Your task to perform on an android device: Search for sushi restaurants on Maps Image 0: 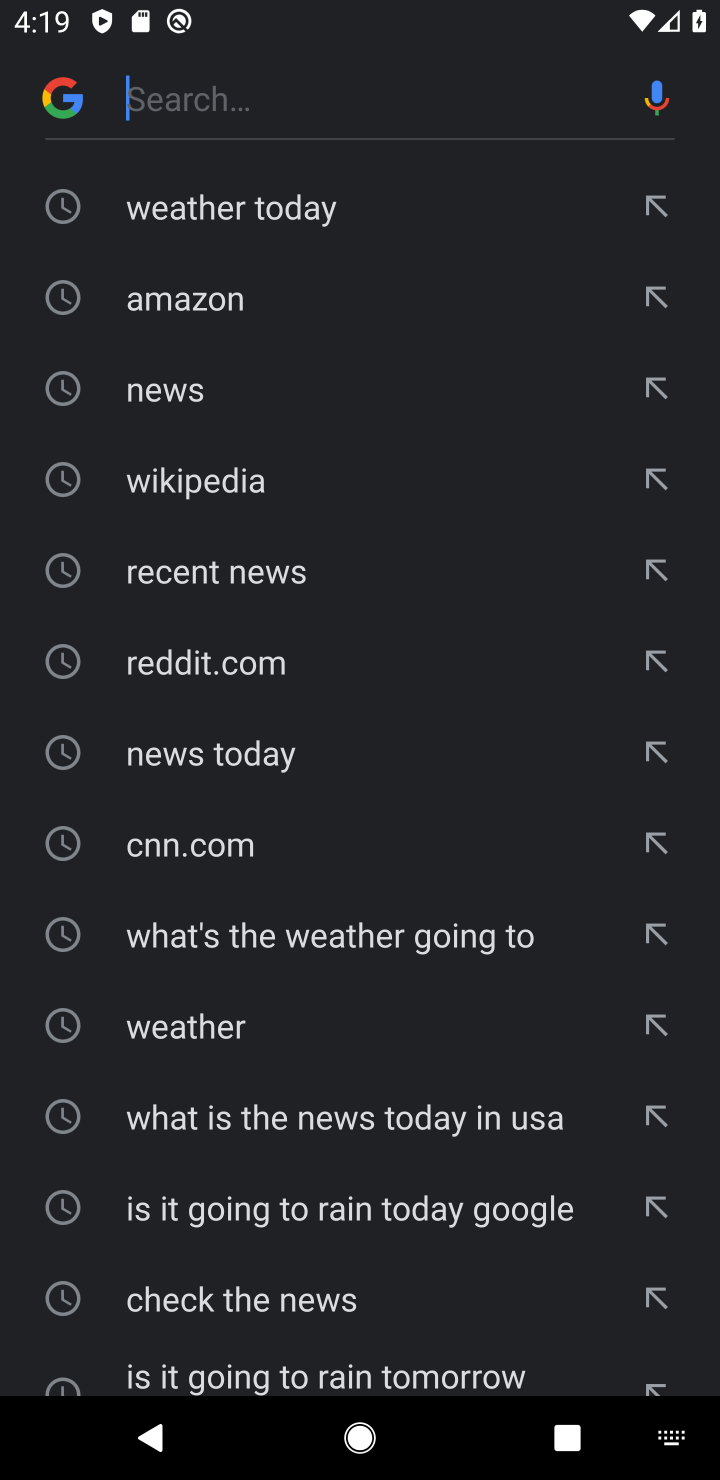
Step 0: press home button
Your task to perform on an android device: Search for sushi restaurants on Maps Image 1: 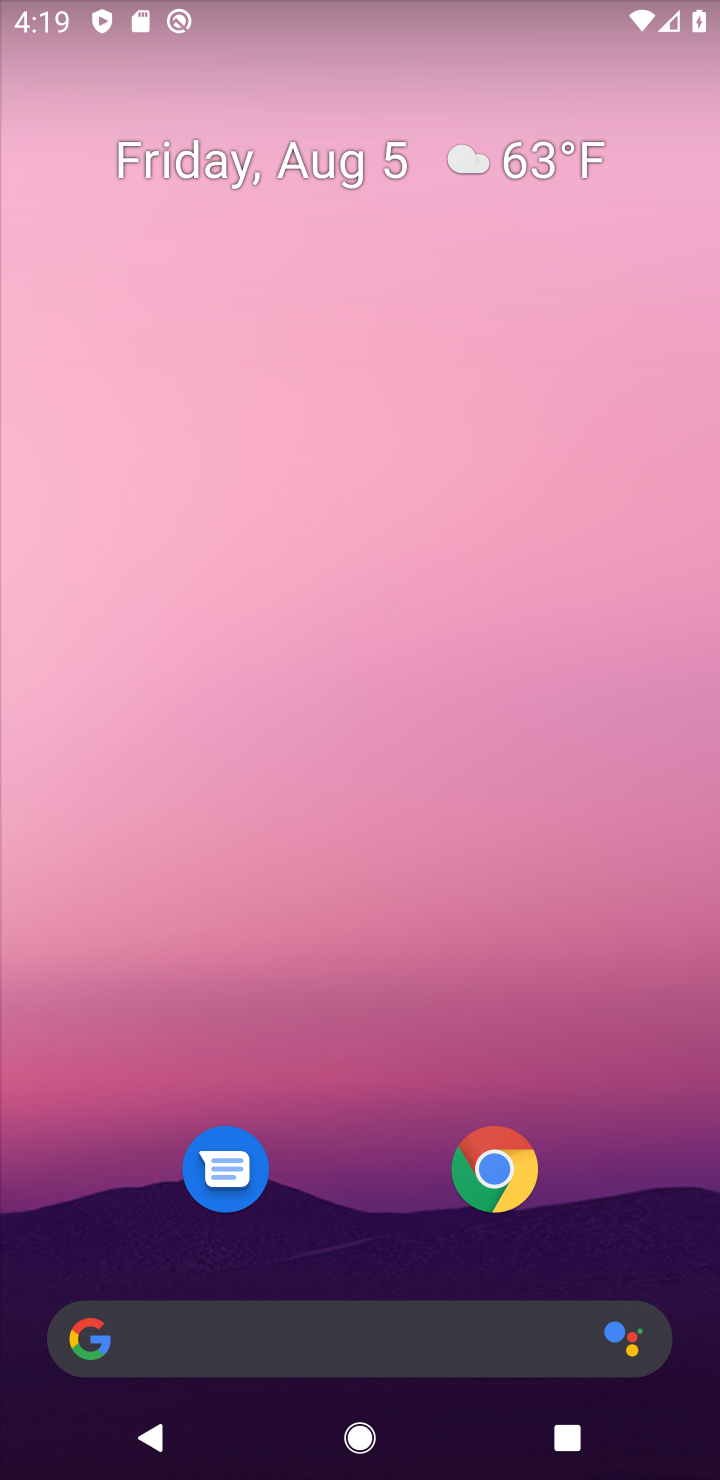
Step 1: drag from (421, 1258) to (379, 272)
Your task to perform on an android device: Search for sushi restaurants on Maps Image 2: 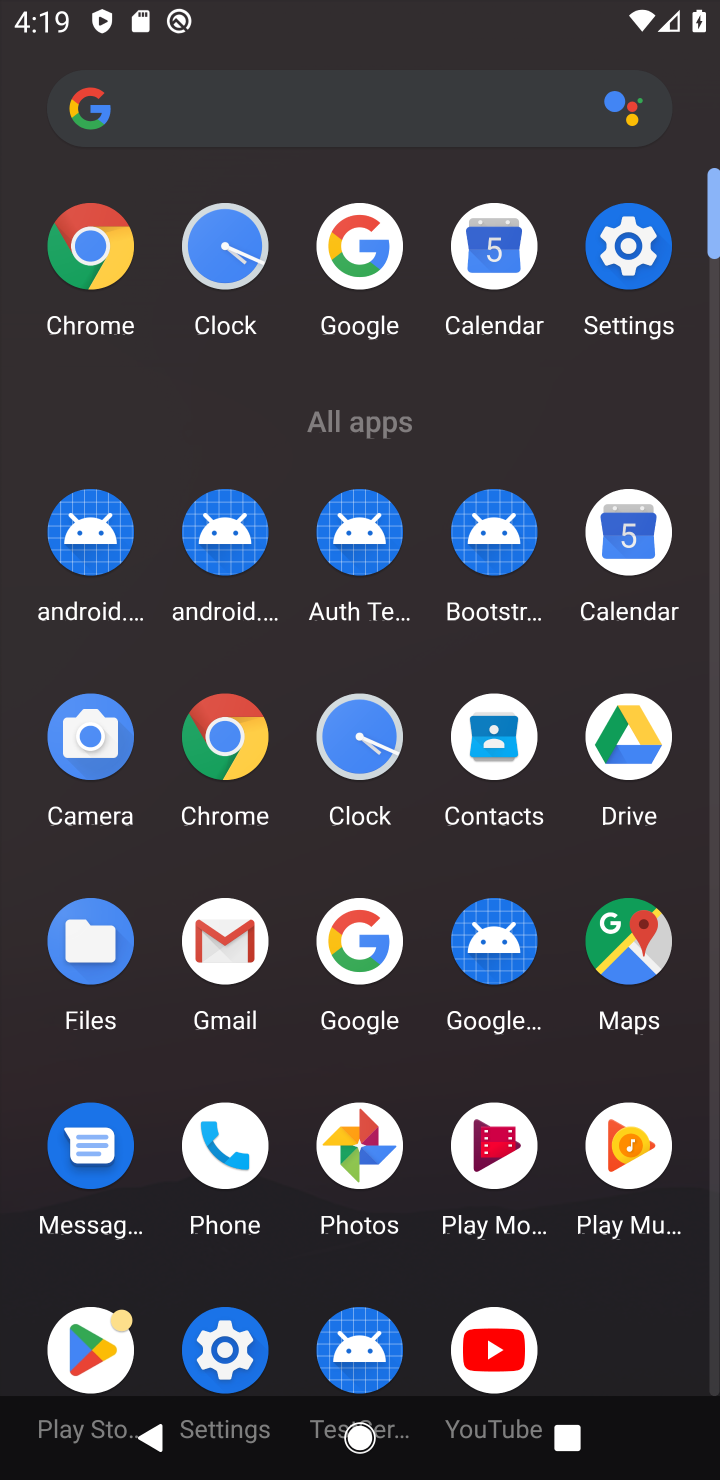
Step 2: click (634, 949)
Your task to perform on an android device: Search for sushi restaurants on Maps Image 3: 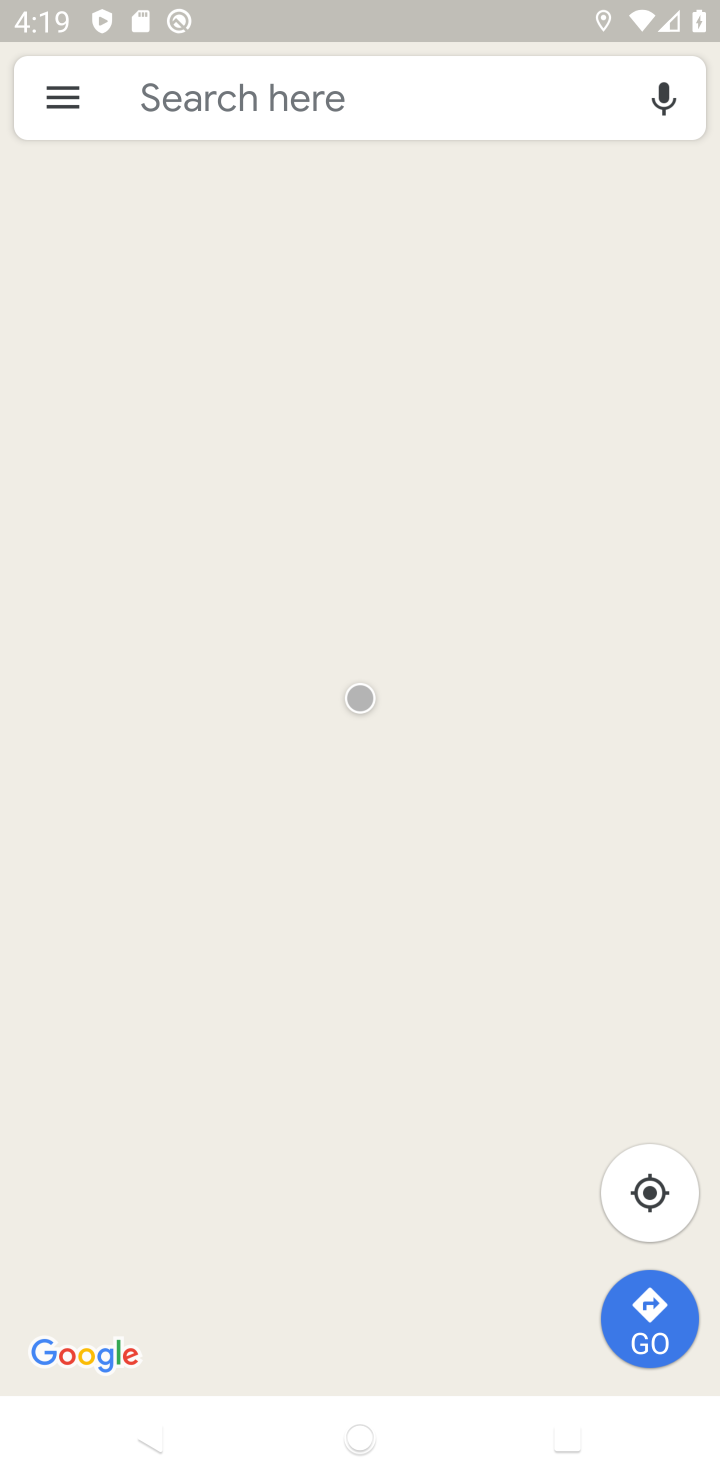
Step 3: click (154, 68)
Your task to perform on an android device: Search for sushi restaurants on Maps Image 4: 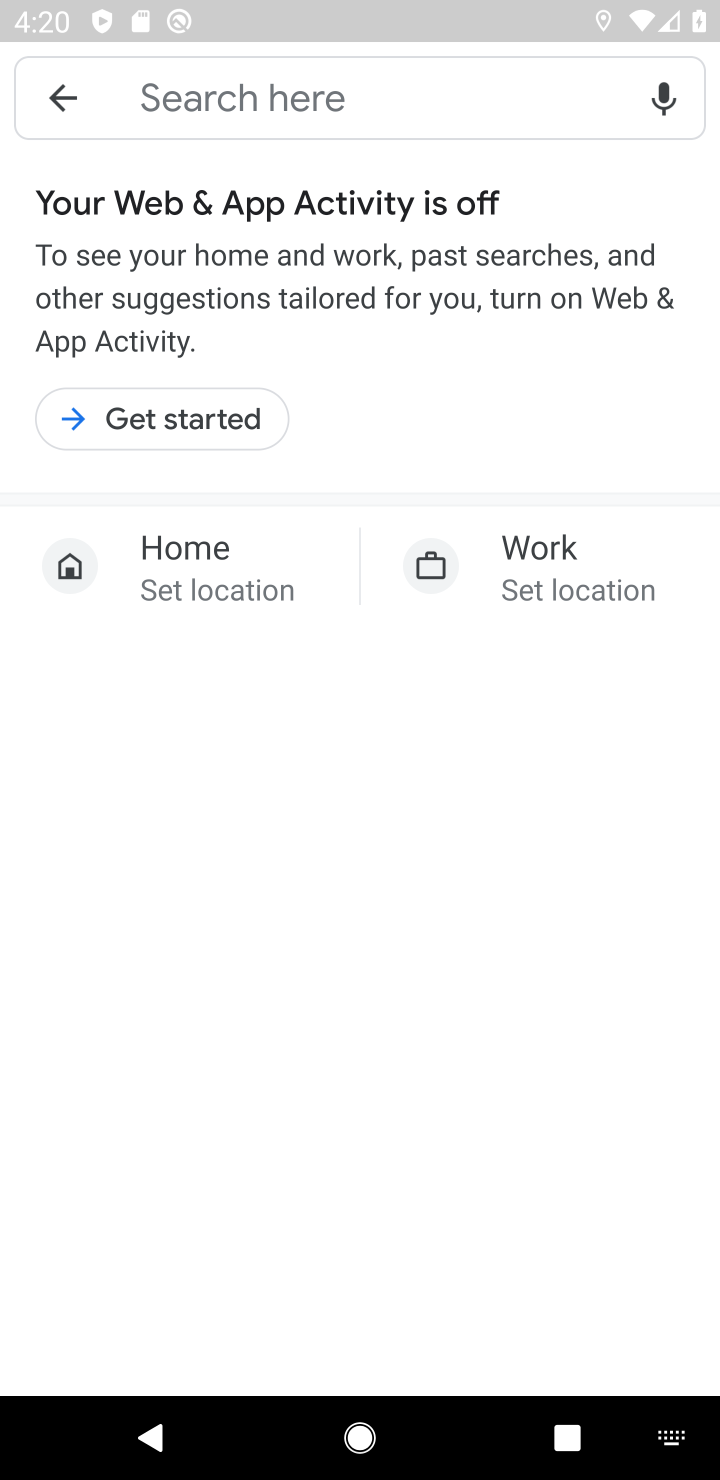
Step 4: click (161, 98)
Your task to perform on an android device: Search for sushi restaurants on Maps Image 5: 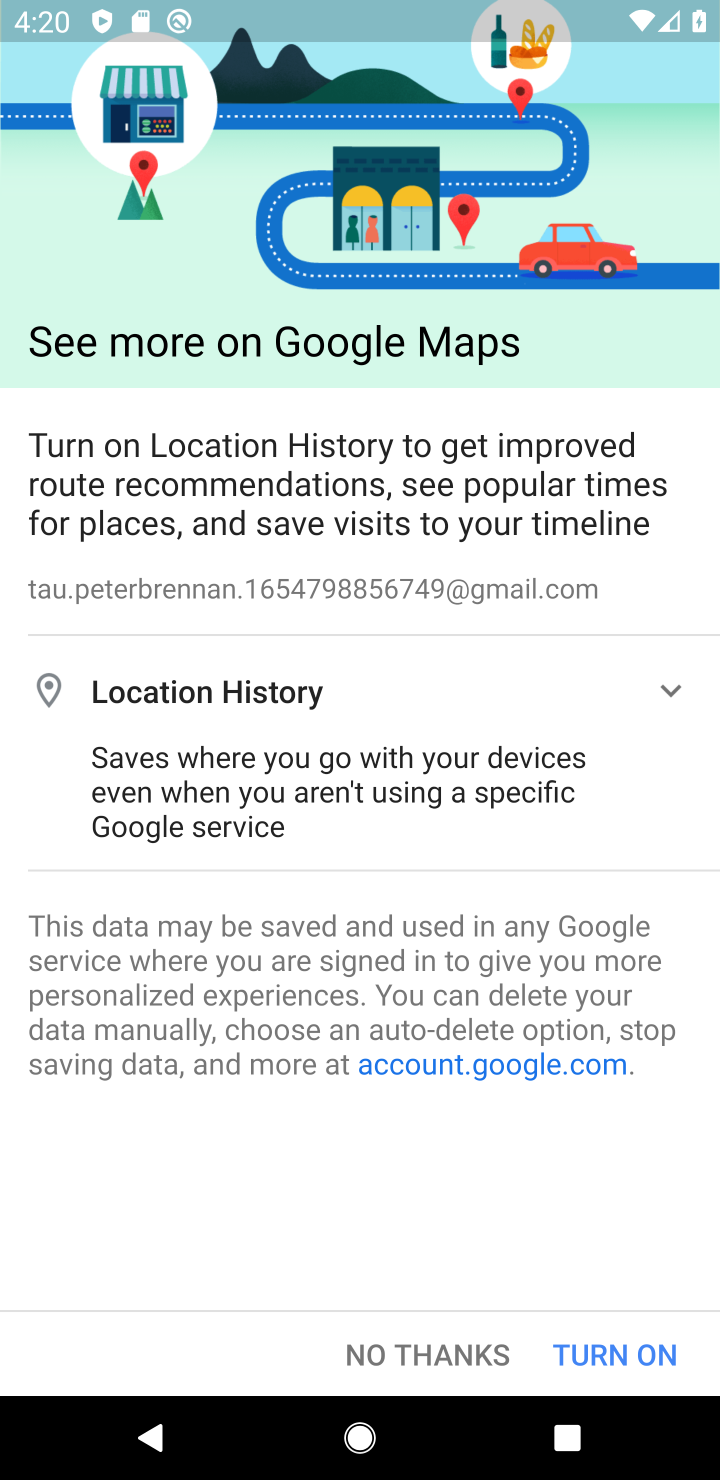
Step 5: click (586, 1348)
Your task to perform on an android device: Search for sushi restaurants on Maps Image 6: 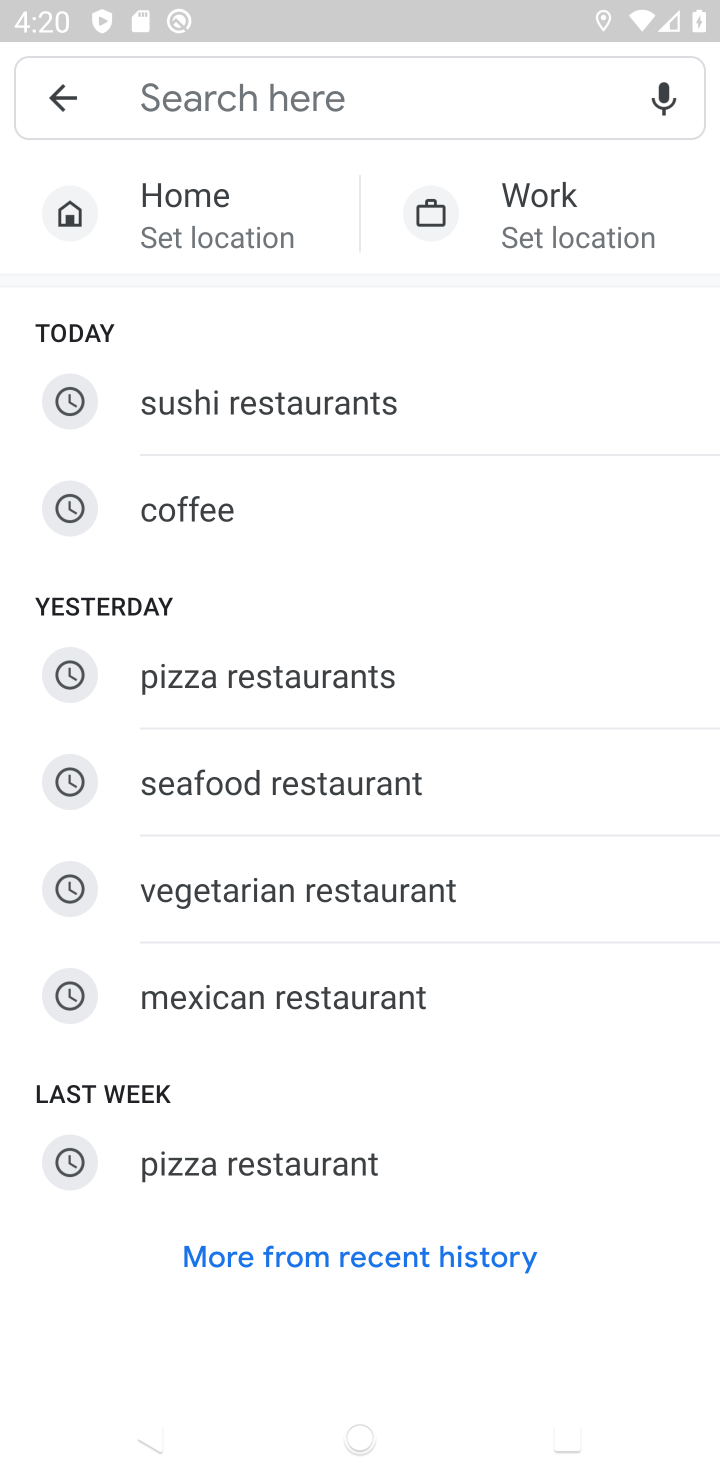
Step 6: click (236, 426)
Your task to perform on an android device: Search for sushi restaurants on Maps Image 7: 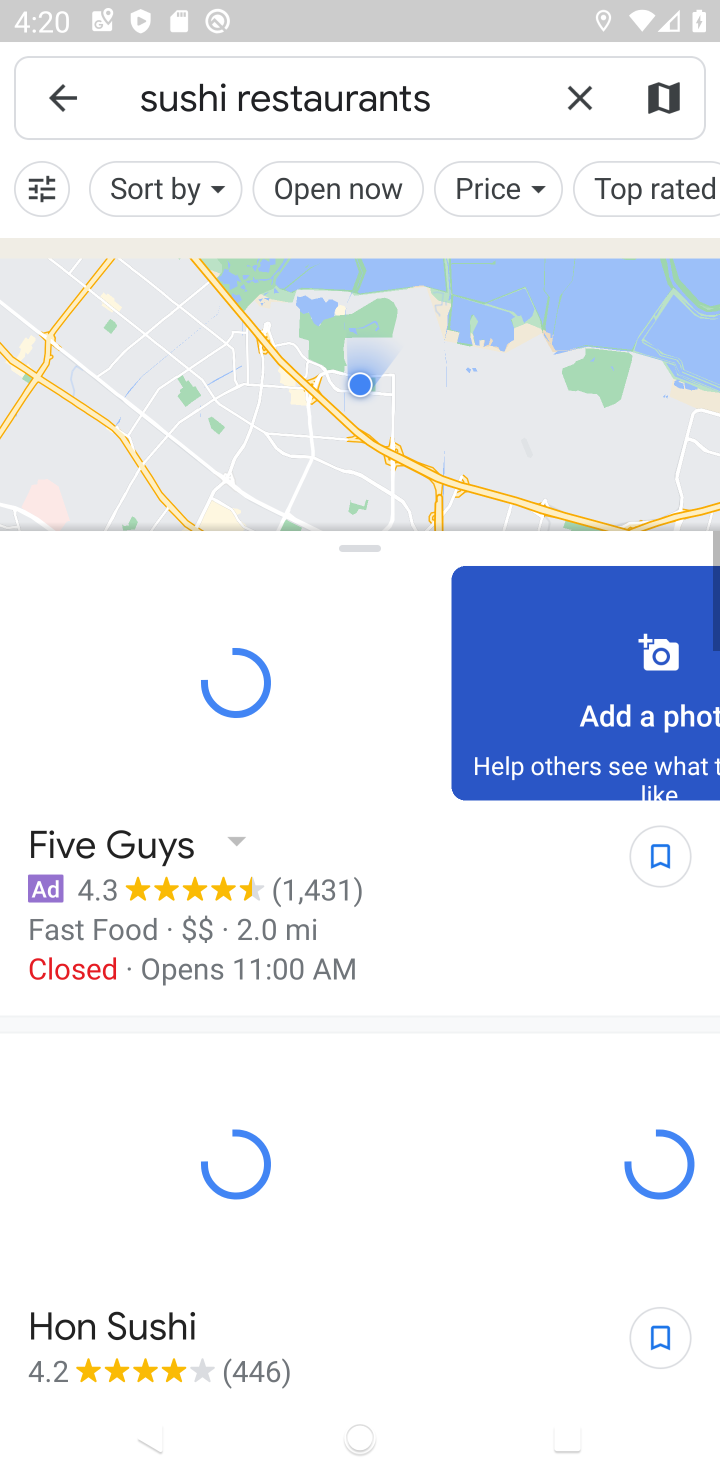
Step 7: task complete